Your task to perform on an android device: open sync settings in chrome Image 0: 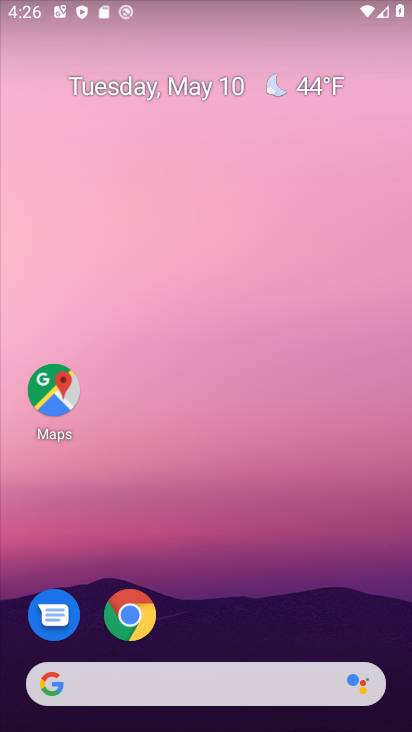
Step 0: click (125, 613)
Your task to perform on an android device: open sync settings in chrome Image 1: 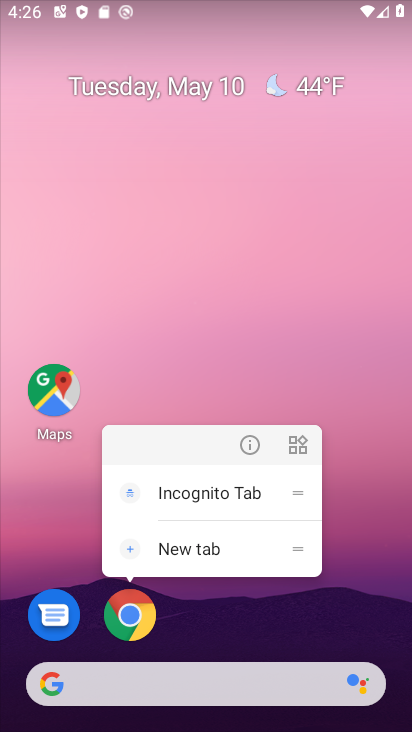
Step 1: click (134, 633)
Your task to perform on an android device: open sync settings in chrome Image 2: 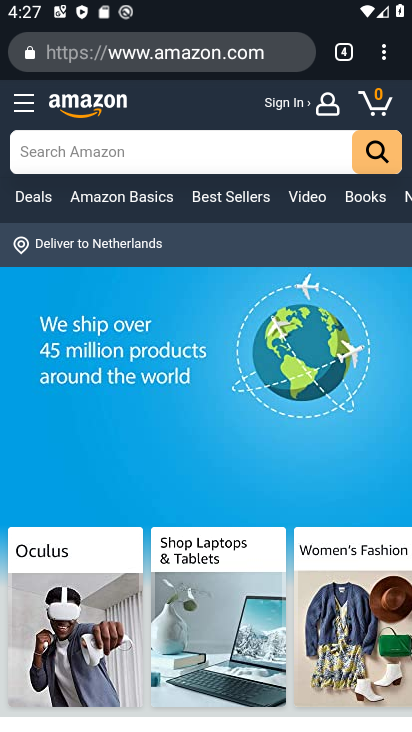
Step 2: click (383, 56)
Your task to perform on an android device: open sync settings in chrome Image 3: 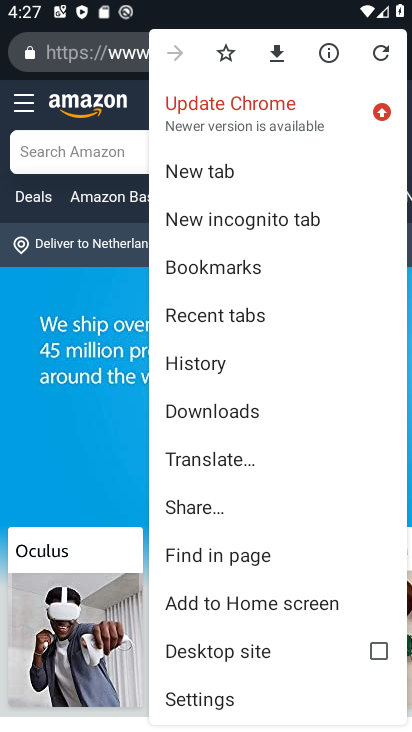
Step 3: click (199, 696)
Your task to perform on an android device: open sync settings in chrome Image 4: 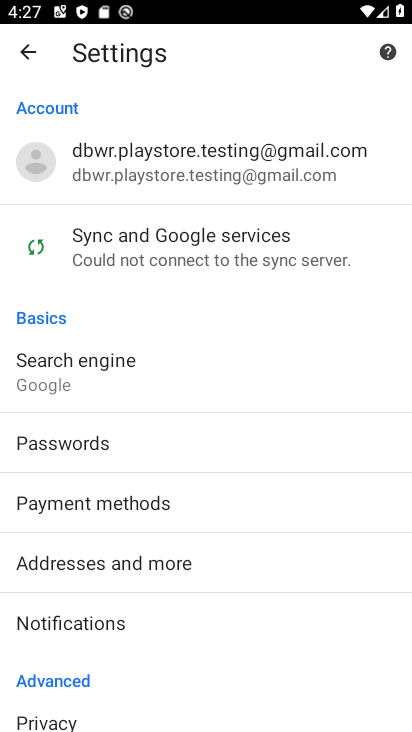
Step 4: drag from (104, 670) to (103, 310)
Your task to perform on an android device: open sync settings in chrome Image 5: 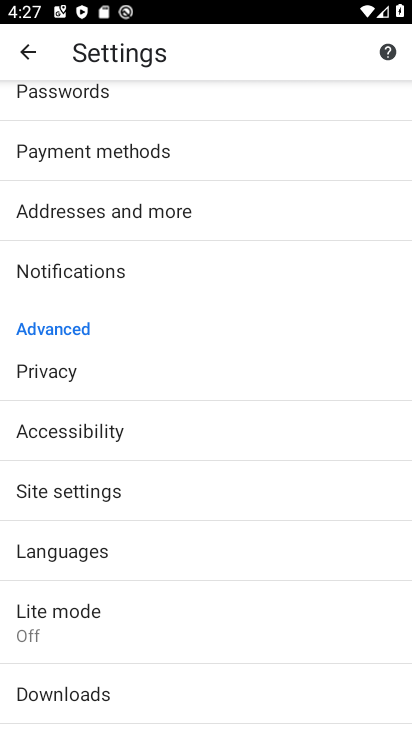
Step 5: click (73, 492)
Your task to perform on an android device: open sync settings in chrome Image 6: 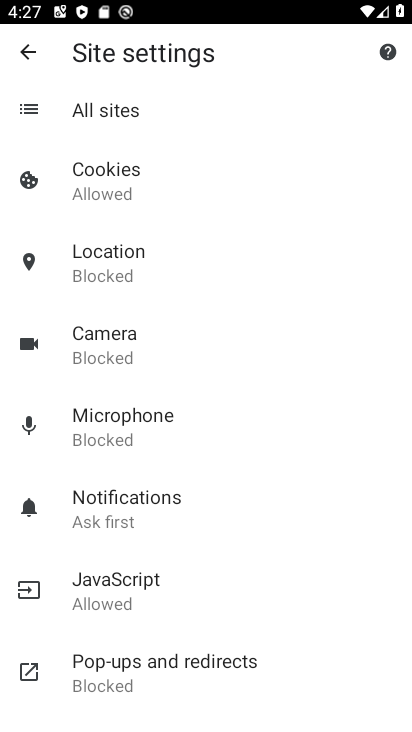
Step 6: drag from (146, 632) to (134, 232)
Your task to perform on an android device: open sync settings in chrome Image 7: 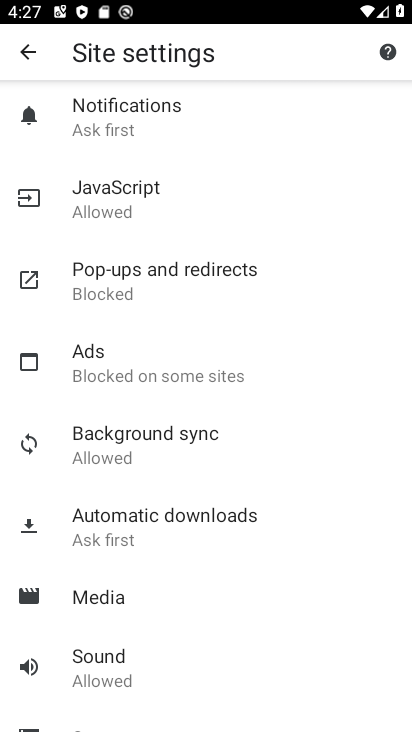
Step 7: click (132, 436)
Your task to perform on an android device: open sync settings in chrome Image 8: 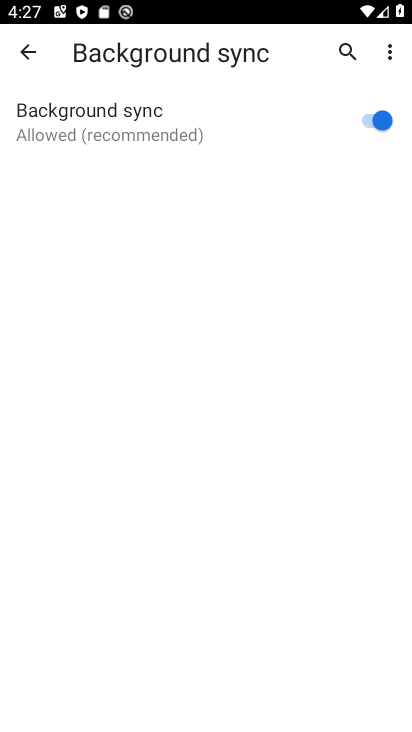
Step 8: task complete